Your task to perform on an android device: turn off picture-in-picture Image 0: 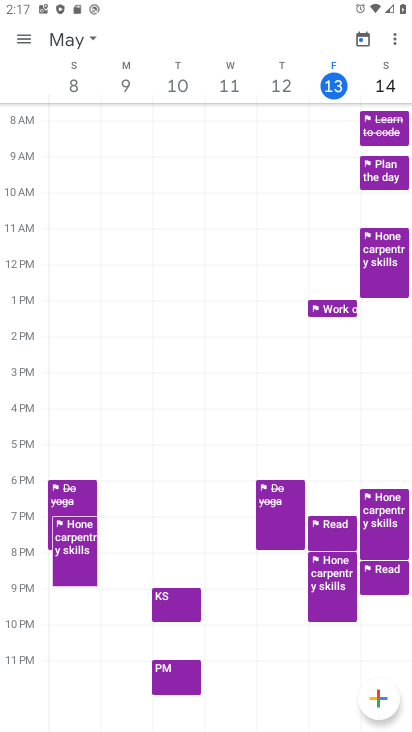
Step 0: press home button
Your task to perform on an android device: turn off picture-in-picture Image 1: 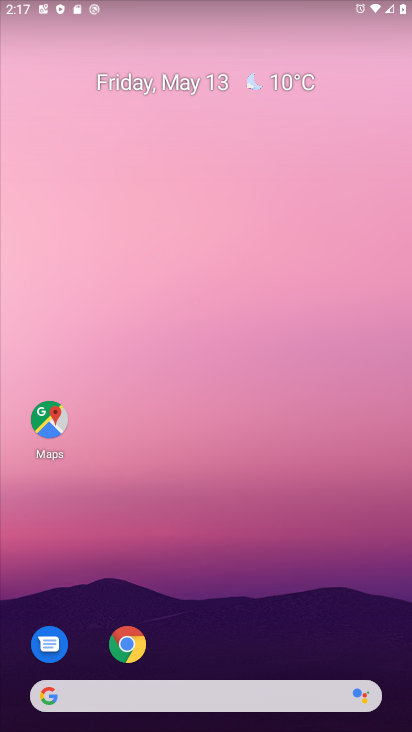
Step 1: drag from (207, 725) to (207, 209)
Your task to perform on an android device: turn off picture-in-picture Image 2: 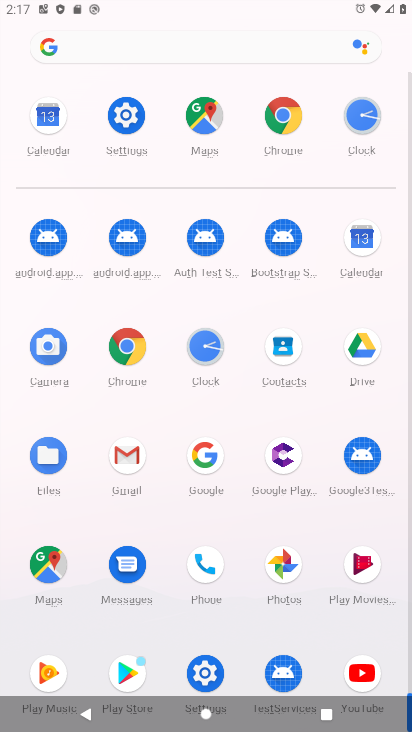
Step 2: click (130, 119)
Your task to perform on an android device: turn off picture-in-picture Image 3: 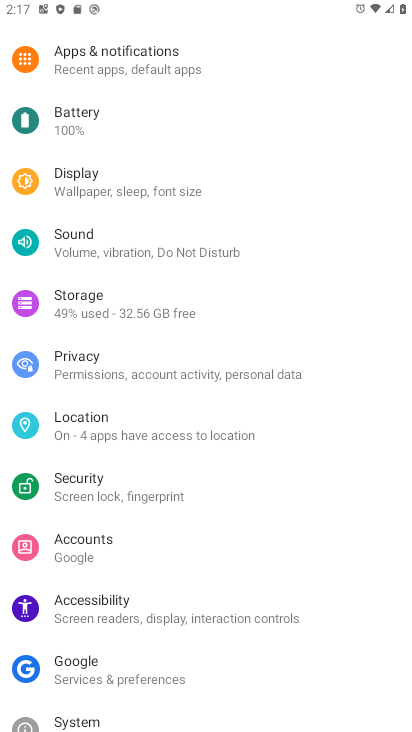
Step 3: click (131, 58)
Your task to perform on an android device: turn off picture-in-picture Image 4: 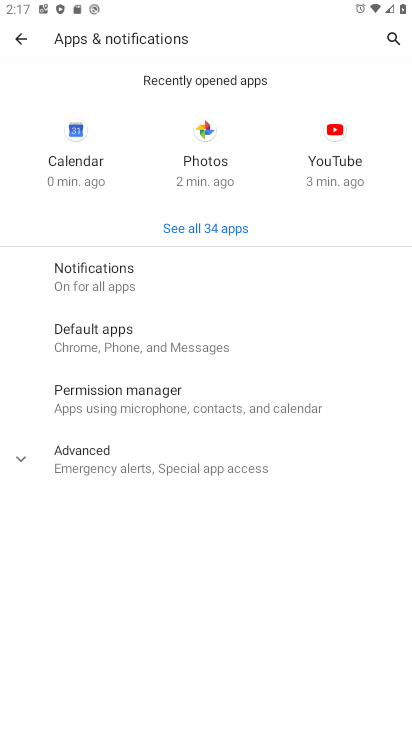
Step 4: click (92, 460)
Your task to perform on an android device: turn off picture-in-picture Image 5: 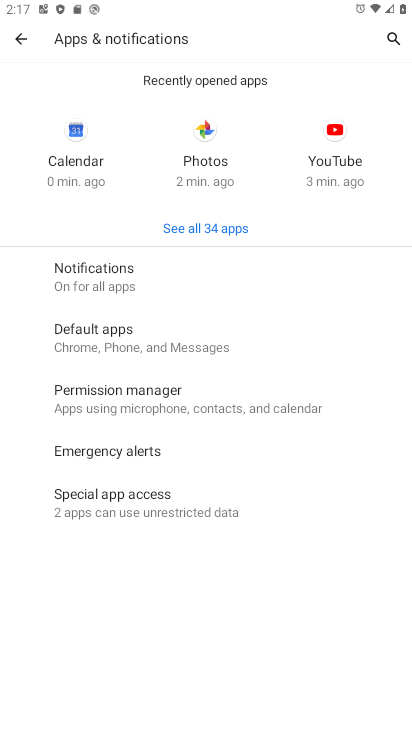
Step 5: click (104, 510)
Your task to perform on an android device: turn off picture-in-picture Image 6: 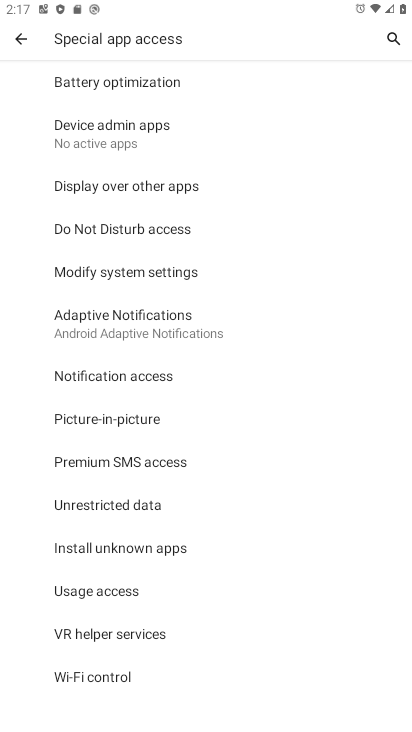
Step 6: click (113, 413)
Your task to perform on an android device: turn off picture-in-picture Image 7: 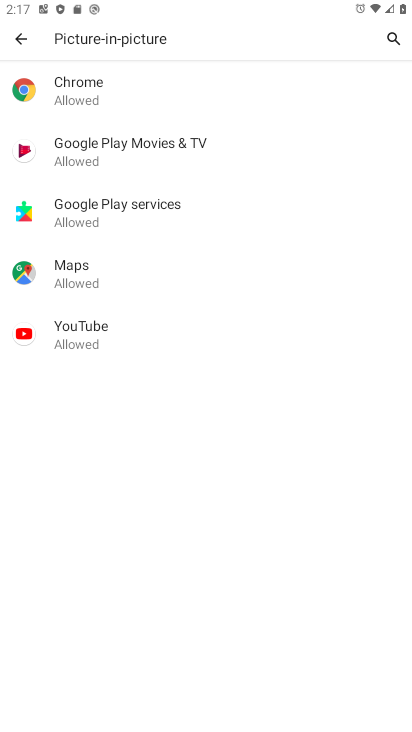
Step 7: click (93, 333)
Your task to perform on an android device: turn off picture-in-picture Image 8: 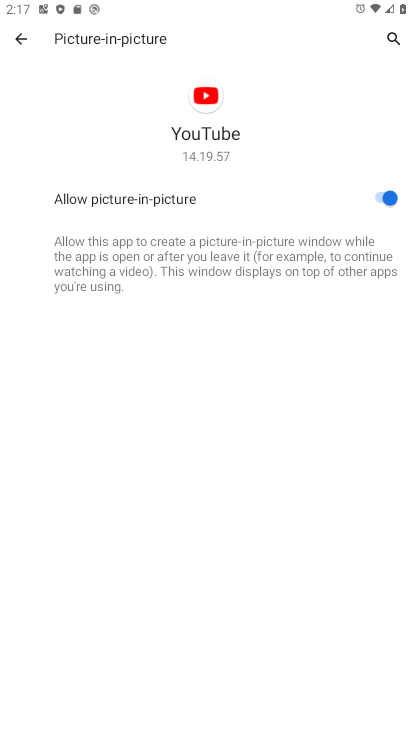
Step 8: click (377, 198)
Your task to perform on an android device: turn off picture-in-picture Image 9: 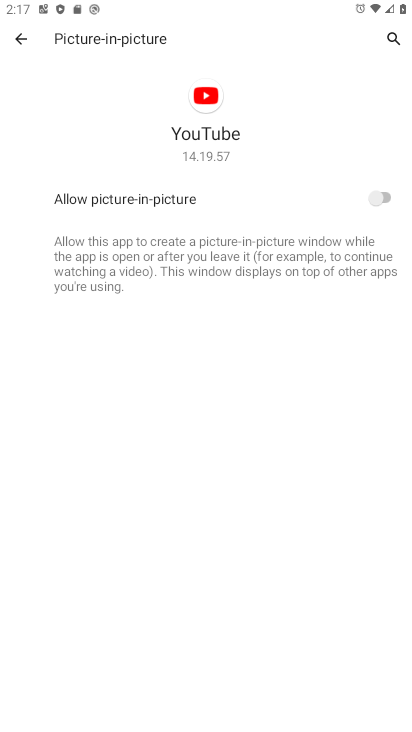
Step 9: task complete